Your task to perform on an android device: Open Google Image 0: 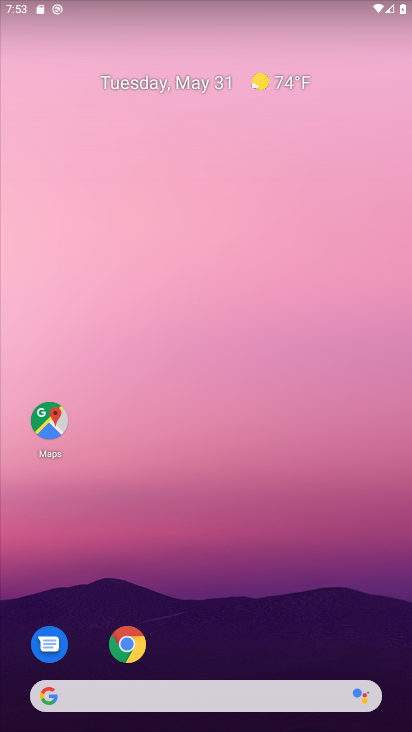
Step 0: drag from (213, 660) to (232, 26)
Your task to perform on an android device: Open Google Image 1: 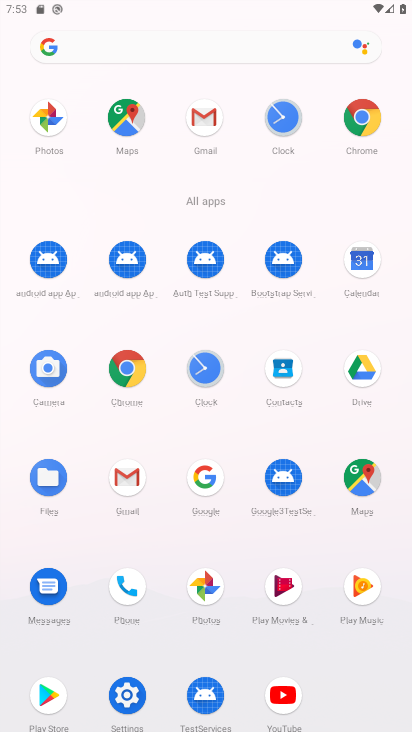
Step 1: click (203, 471)
Your task to perform on an android device: Open Google Image 2: 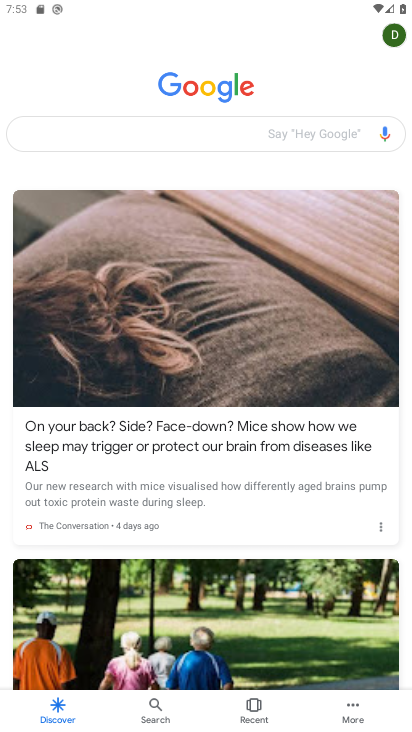
Step 2: task complete